Your task to perform on an android device: turn on javascript in the chrome app Image 0: 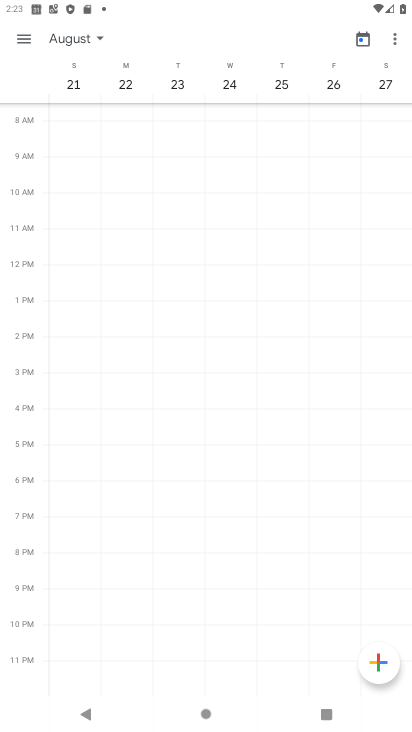
Step 0: press home button
Your task to perform on an android device: turn on javascript in the chrome app Image 1: 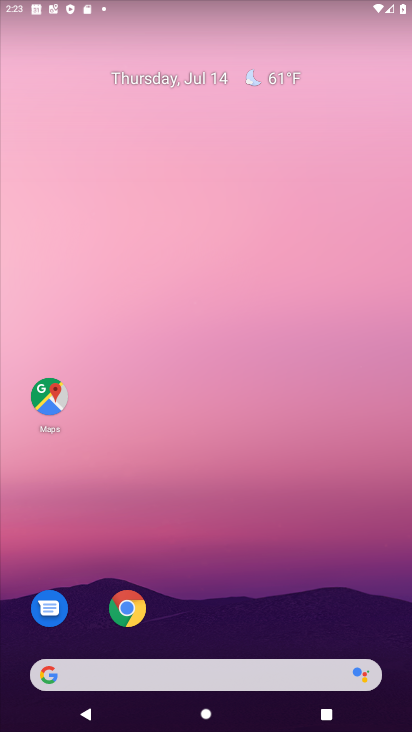
Step 1: click (126, 606)
Your task to perform on an android device: turn on javascript in the chrome app Image 2: 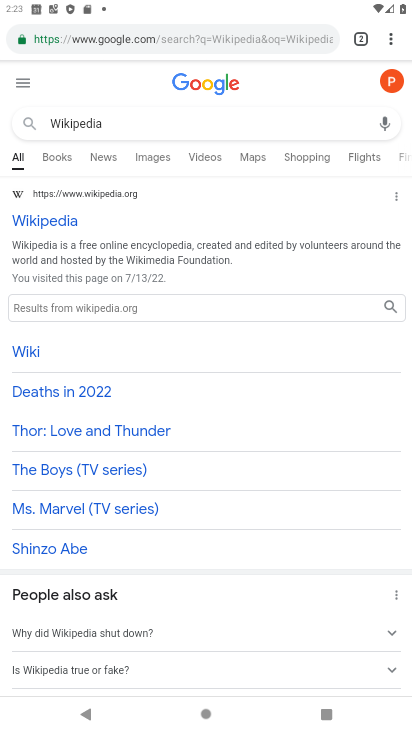
Step 2: click (388, 39)
Your task to perform on an android device: turn on javascript in the chrome app Image 3: 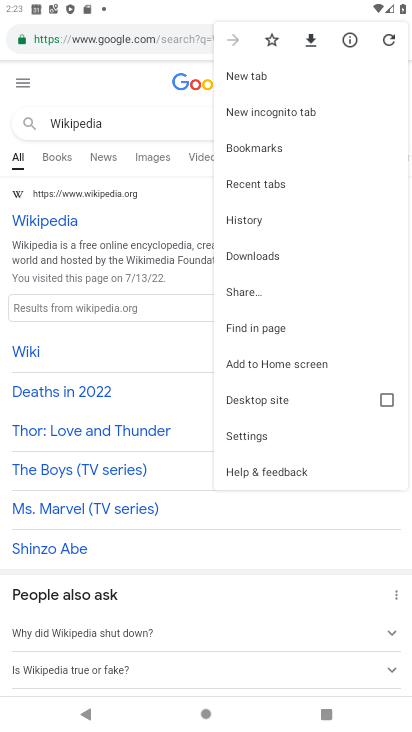
Step 3: click (256, 435)
Your task to perform on an android device: turn on javascript in the chrome app Image 4: 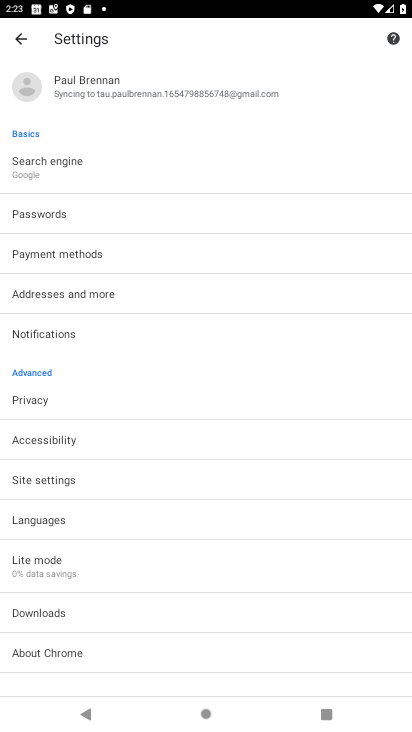
Step 4: click (56, 478)
Your task to perform on an android device: turn on javascript in the chrome app Image 5: 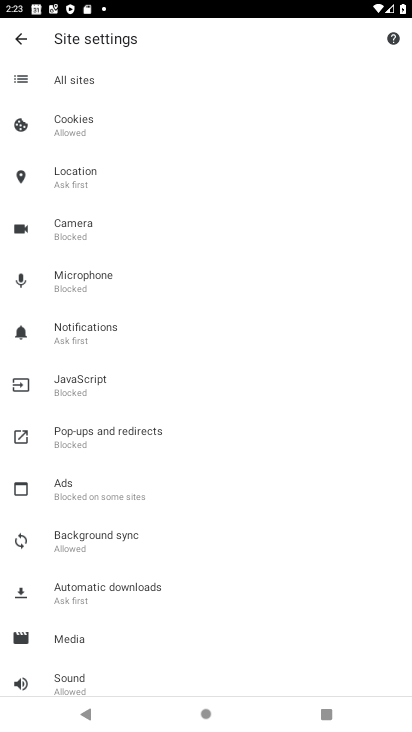
Step 5: click (92, 380)
Your task to perform on an android device: turn on javascript in the chrome app Image 6: 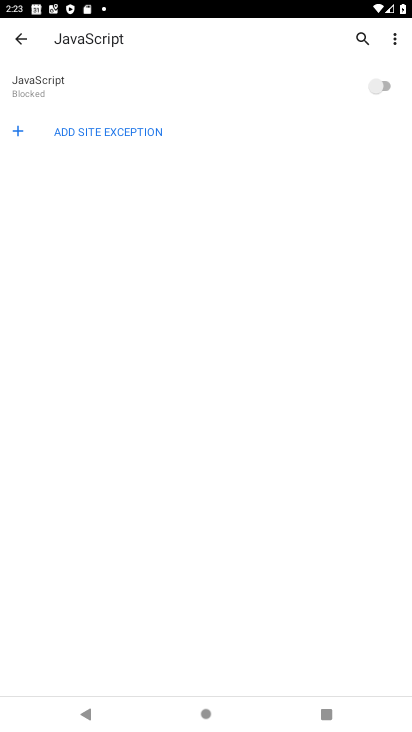
Step 6: click (378, 85)
Your task to perform on an android device: turn on javascript in the chrome app Image 7: 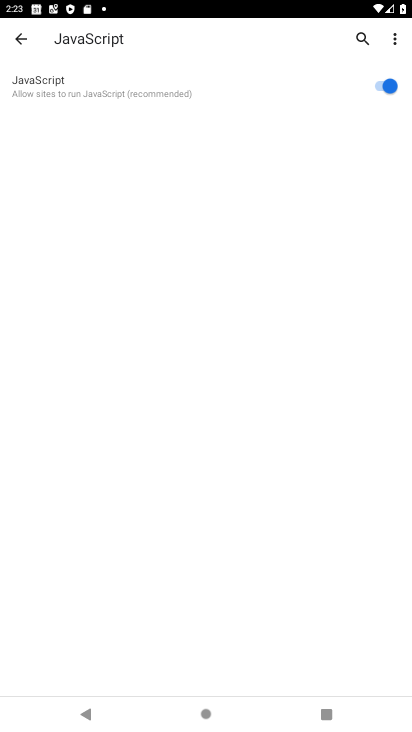
Step 7: task complete